Your task to perform on an android device: manage bookmarks in the chrome app Image 0: 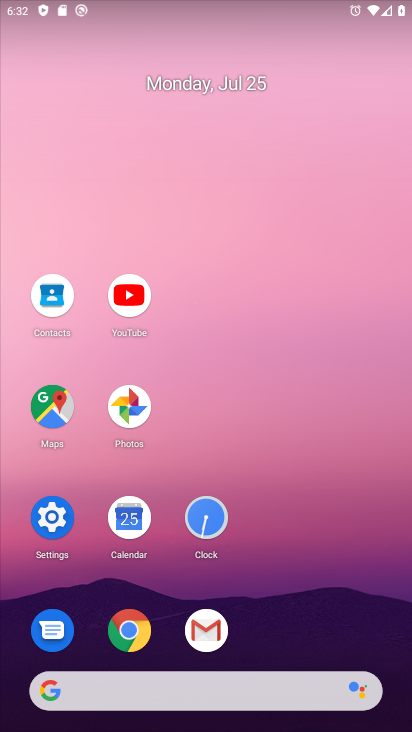
Step 0: click (124, 630)
Your task to perform on an android device: manage bookmarks in the chrome app Image 1: 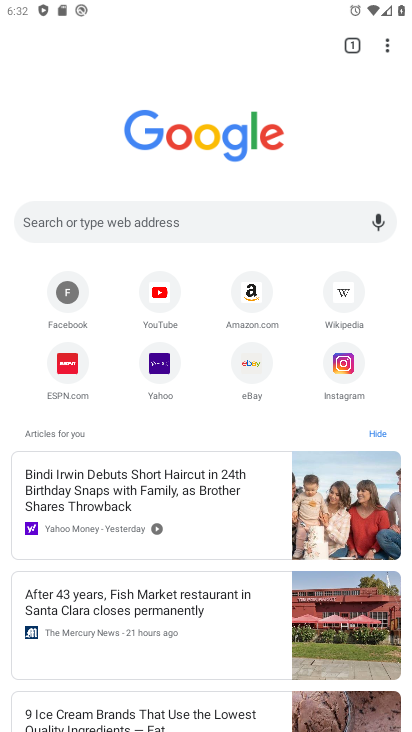
Step 1: click (384, 44)
Your task to perform on an android device: manage bookmarks in the chrome app Image 2: 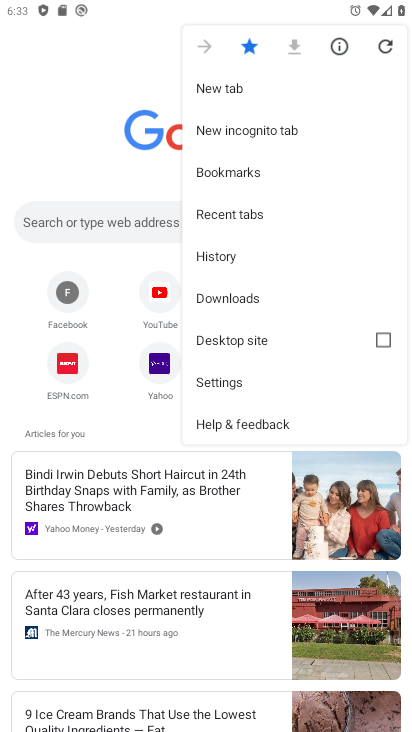
Step 2: click (234, 172)
Your task to perform on an android device: manage bookmarks in the chrome app Image 3: 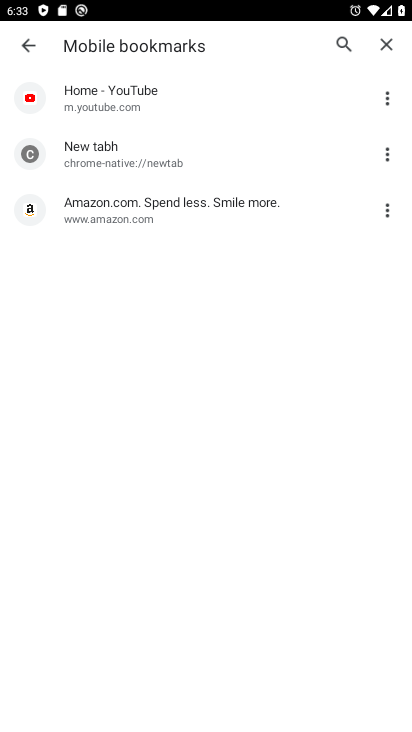
Step 3: click (389, 94)
Your task to perform on an android device: manage bookmarks in the chrome app Image 4: 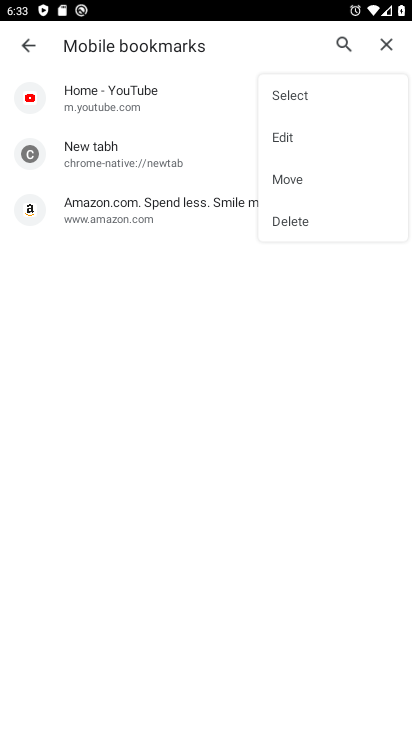
Step 4: click (295, 126)
Your task to perform on an android device: manage bookmarks in the chrome app Image 5: 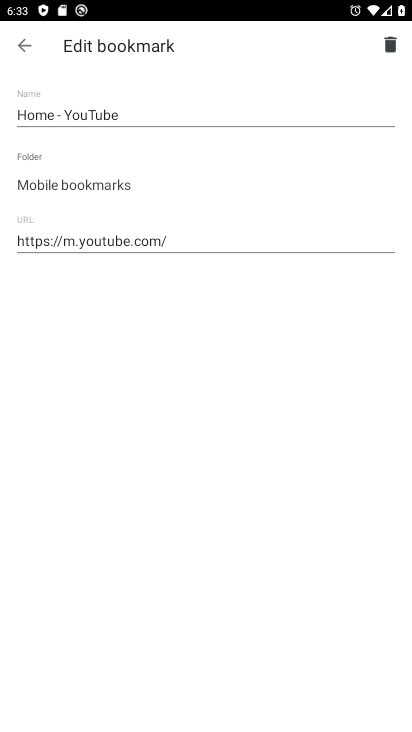
Step 5: task complete